Your task to perform on an android device: turn on location history Image 0: 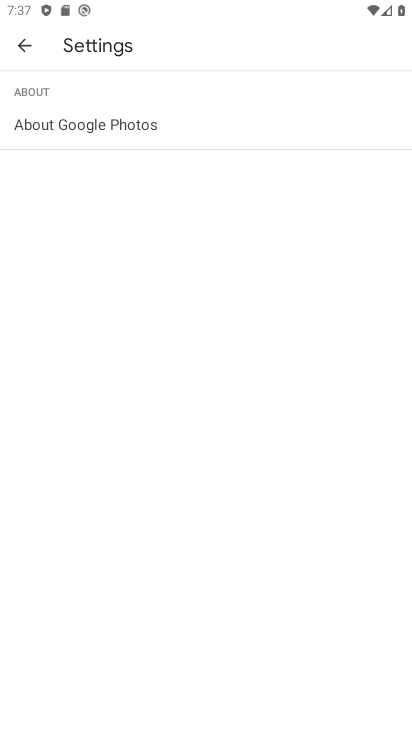
Step 0: press home button
Your task to perform on an android device: turn on location history Image 1: 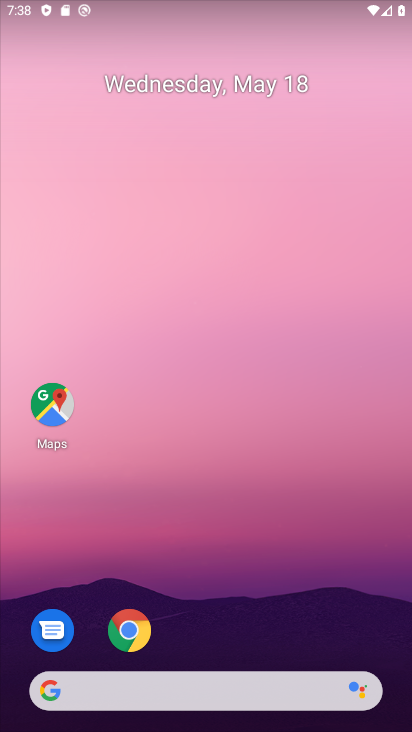
Step 1: click (62, 409)
Your task to perform on an android device: turn on location history Image 2: 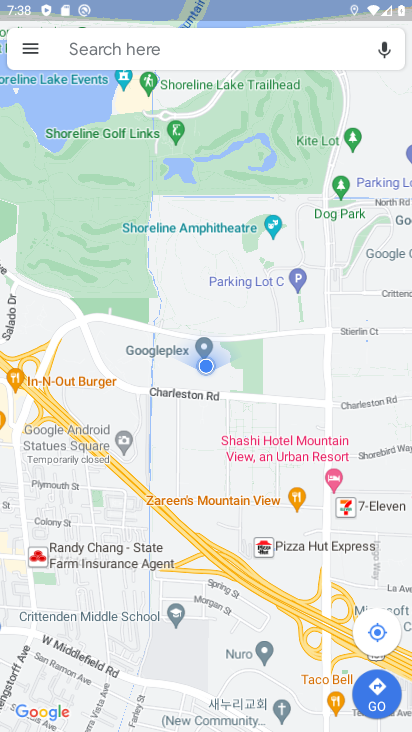
Step 2: click (30, 52)
Your task to perform on an android device: turn on location history Image 3: 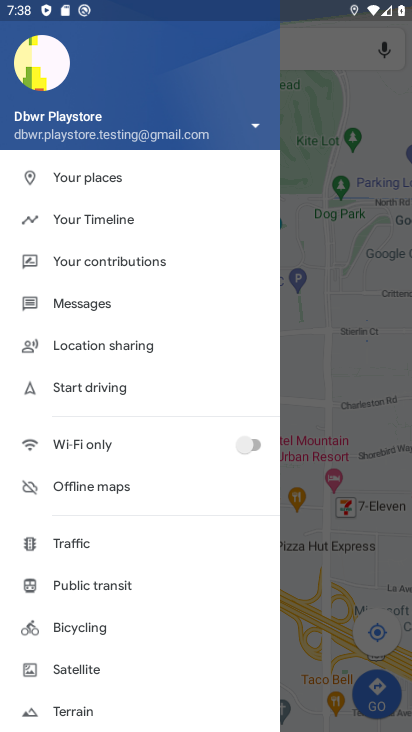
Step 3: click (120, 216)
Your task to perform on an android device: turn on location history Image 4: 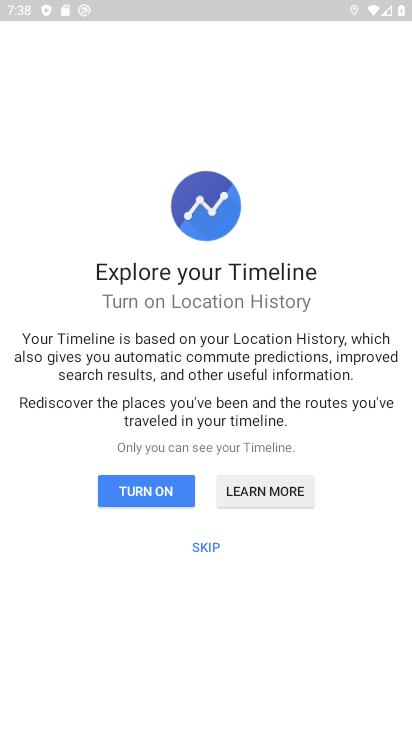
Step 4: click (208, 549)
Your task to perform on an android device: turn on location history Image 5: 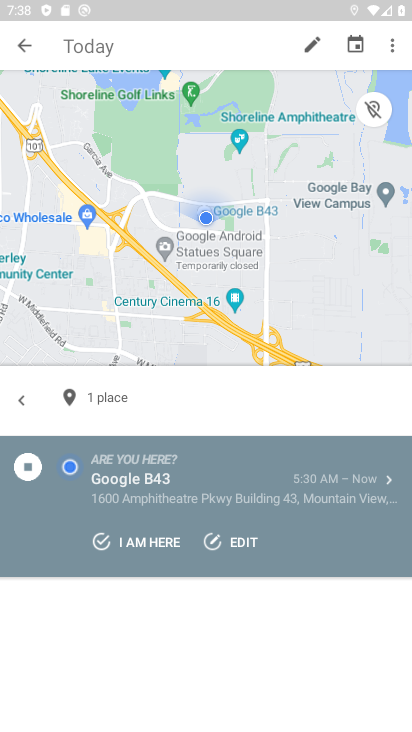
Step 5: click (393, 46)
Your task to perform on an android device: turn on location history Image 6: 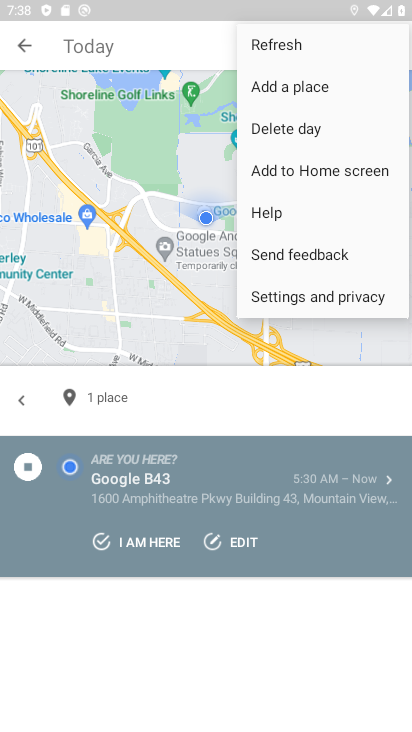
Step 6: click (305, 294)
Your task to perform on an android device: turn on location history Image 7: 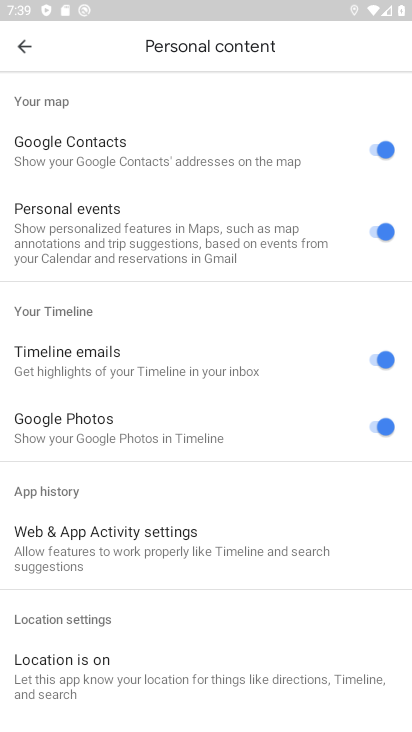
Step 7: drag from (199, 625) to (319, 245)
Your task to perform on an android device: turn on location history Image 8: 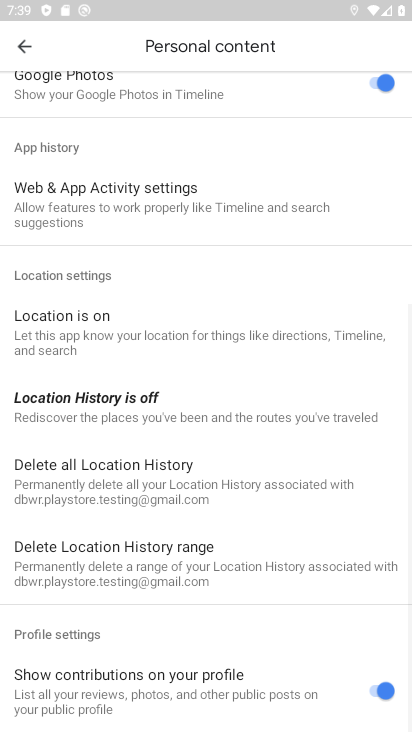
Step 8: click (127, 428)
Your task to perform on an android device: turn on location history Image 9: 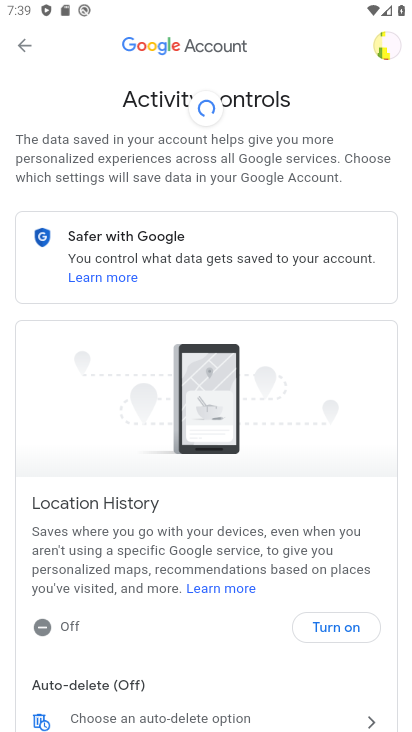
Step 9: click (345, 633)
Your task to perform on an android device: turn on location history Image 10: 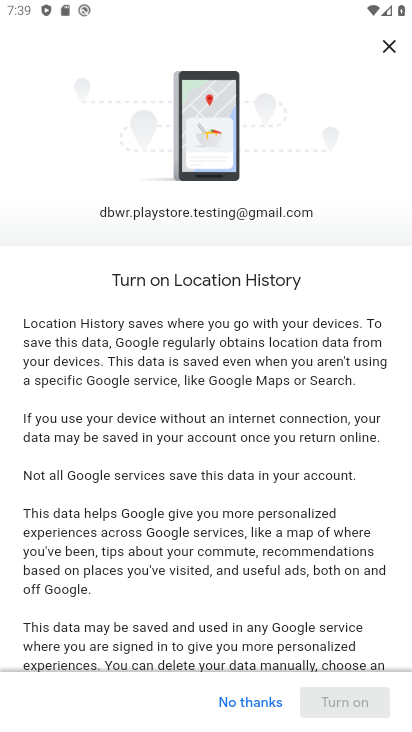
Step 10: drag from (193, 592) to (397, 57)
Your task to perform on an android device: turn on location history Image 11: 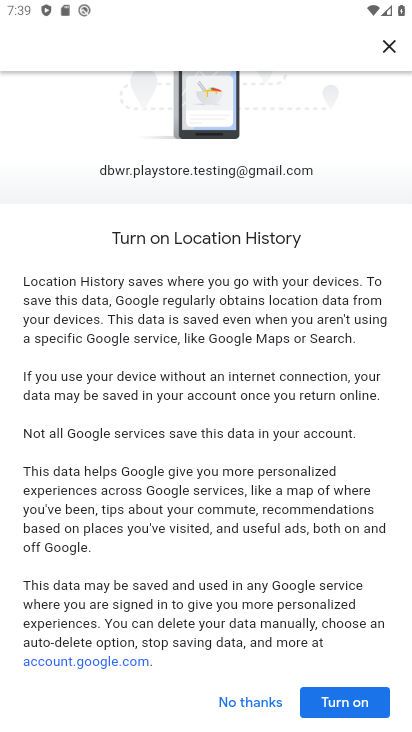
Step 11: click (345, 705)
Your task to perform on an android device: turn on location history Image 12: 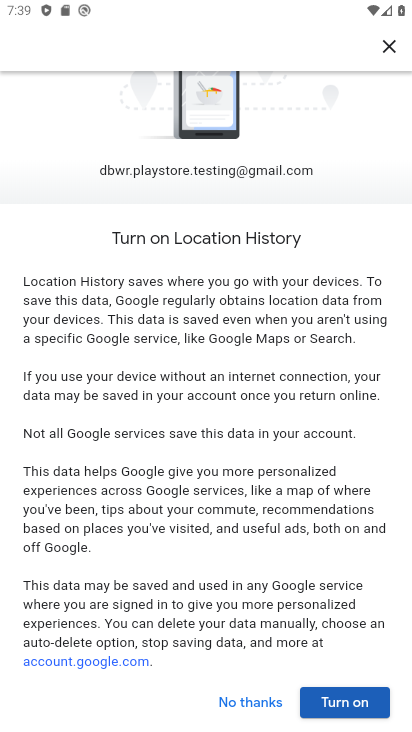
Step 12: click (358, 700)
Your task to perform on an android device: turn on location history Image 13: 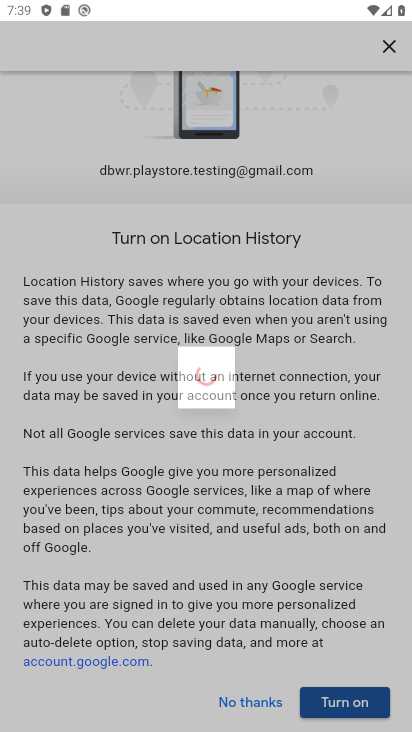
Step 13: click (351, 694)
Your task to perform on an android device: turn on location history Image 14: 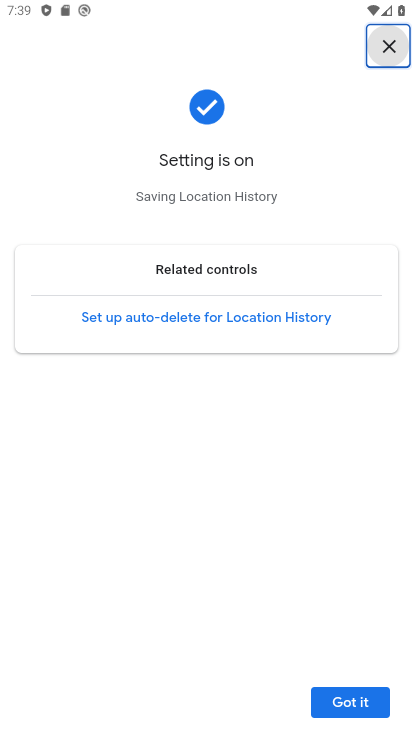
Step 14: click (367, 701)
Your task to perform on an android device: turn on location history Image 15: 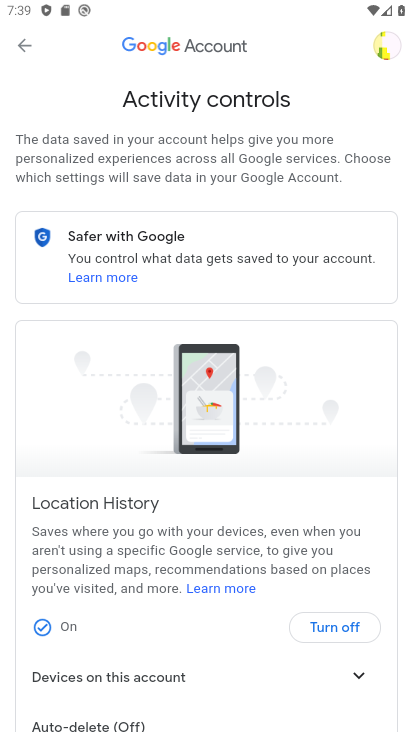
Step 15: task complete